Your task to perform on an android device: open app "Duolingo: language lessons" Image 0: 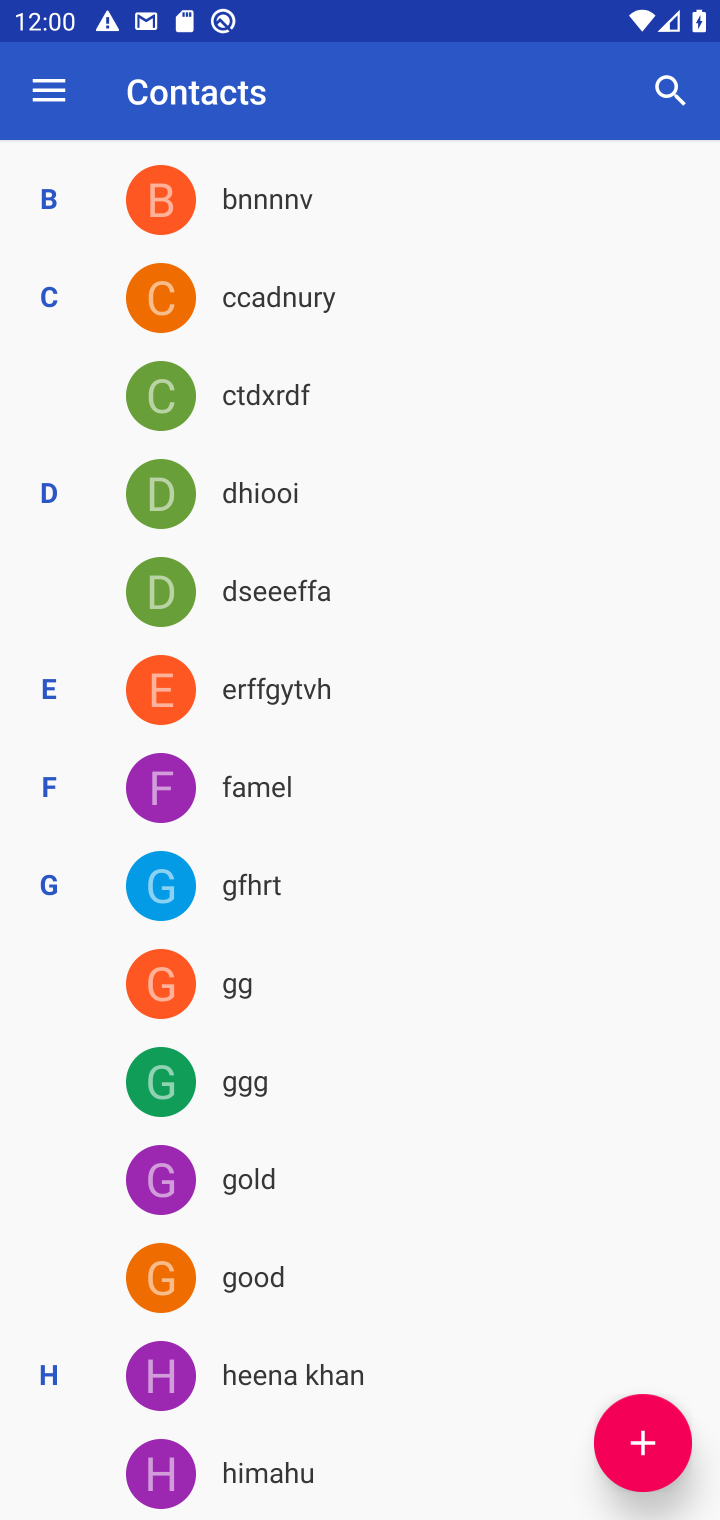
Step 0: press home button
Your task to perform on an android device: open app "Duolingo: language lessons" Image 1: 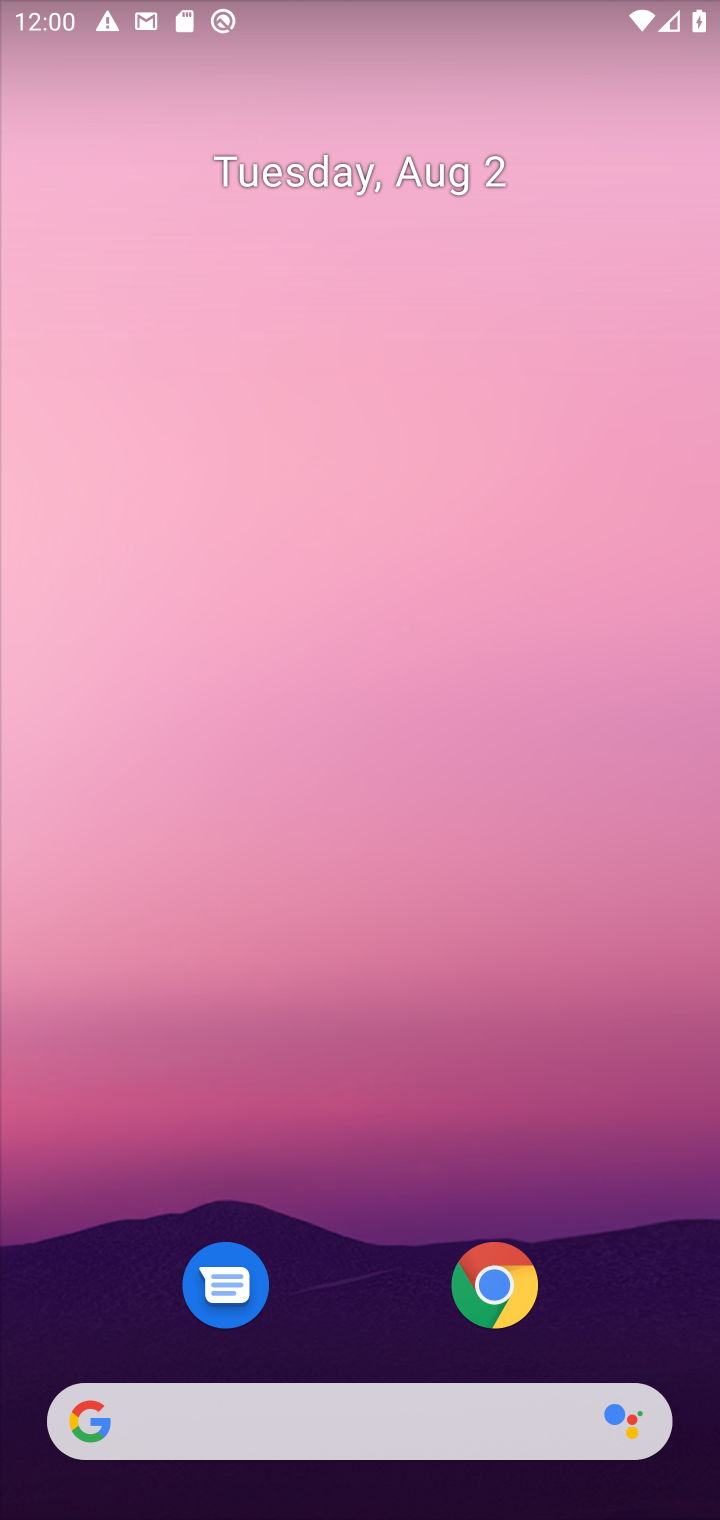
Step 1: drag from (387, 1337) to (719, 455)
Your task to perform on an android device: open app "Duolingo: language lessons" Image 2: 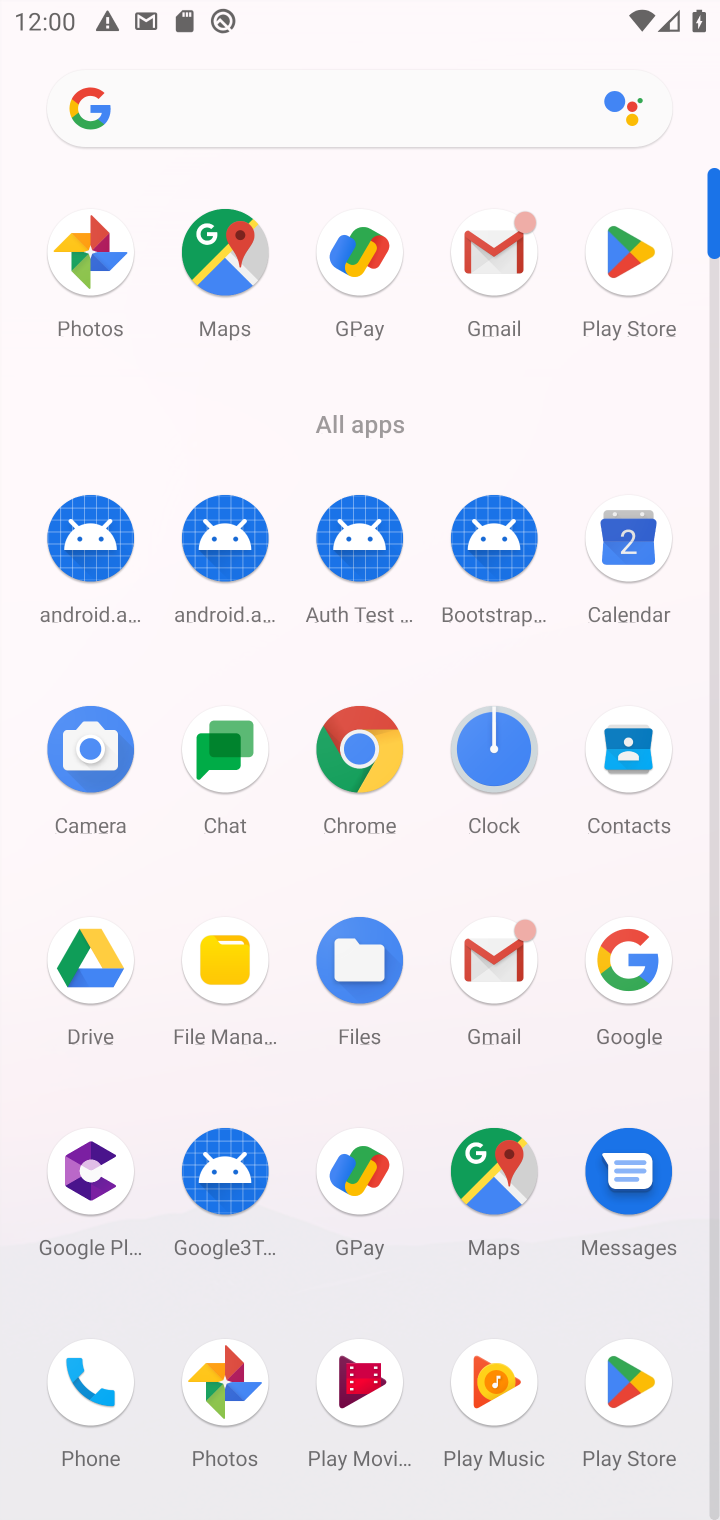
Step 2: click (601, 213)
Your task to perform on an android device: open app "Duolingo: language lessons" Image 3: 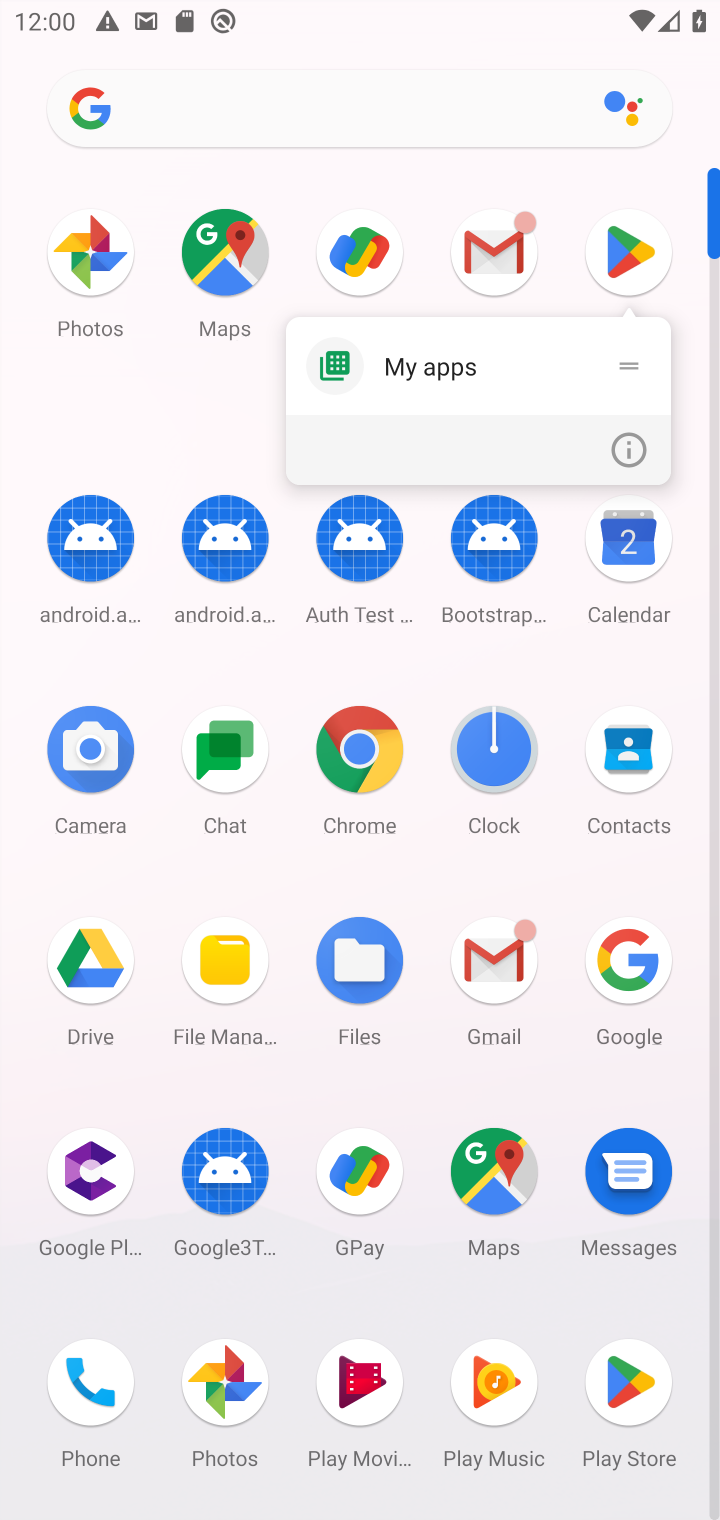
Step 3: click (616, 275)
Your task to perform on an android device: open app "Duolingo: language lessons" Image 4: 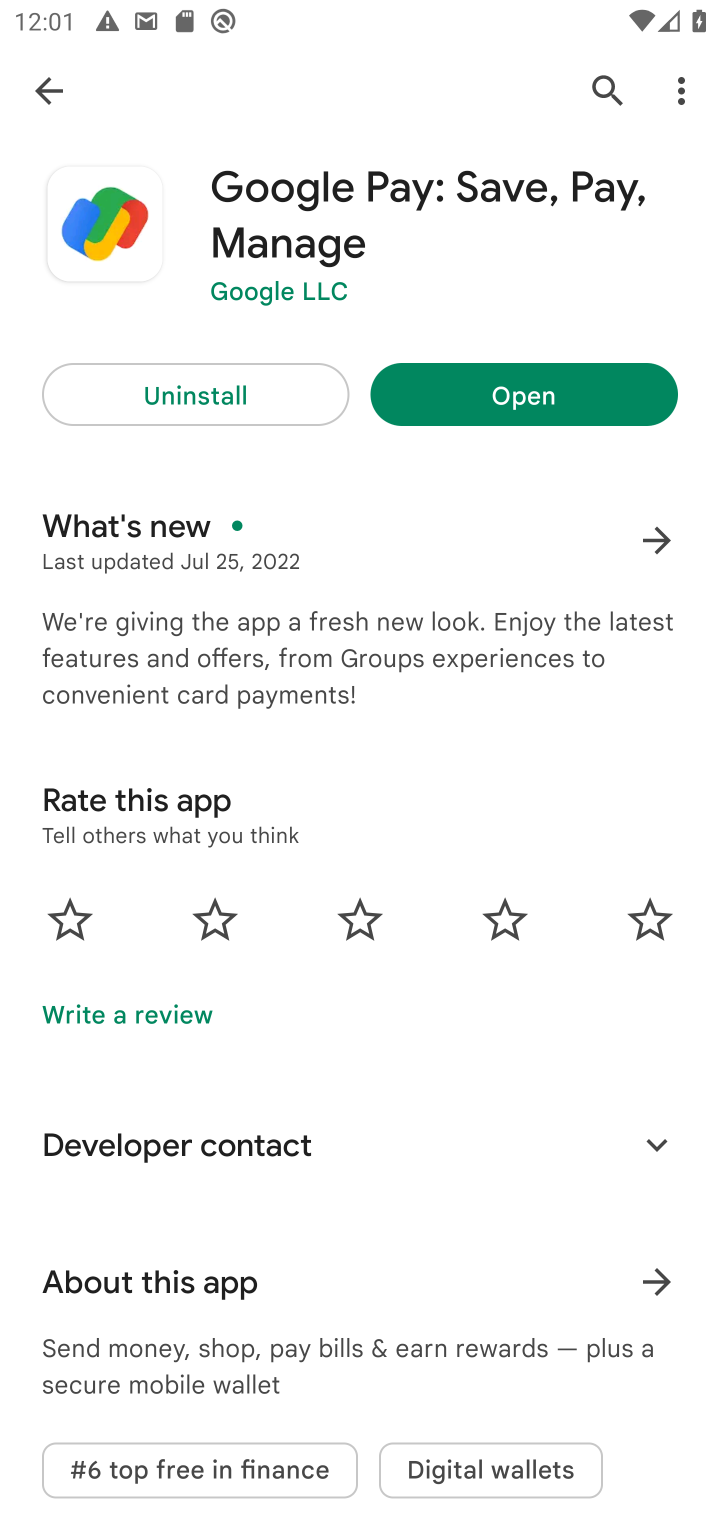
Step 4: click (598, 103)
Your task to perform on an android device: open app "Duolingo: language lessons" Image 5: 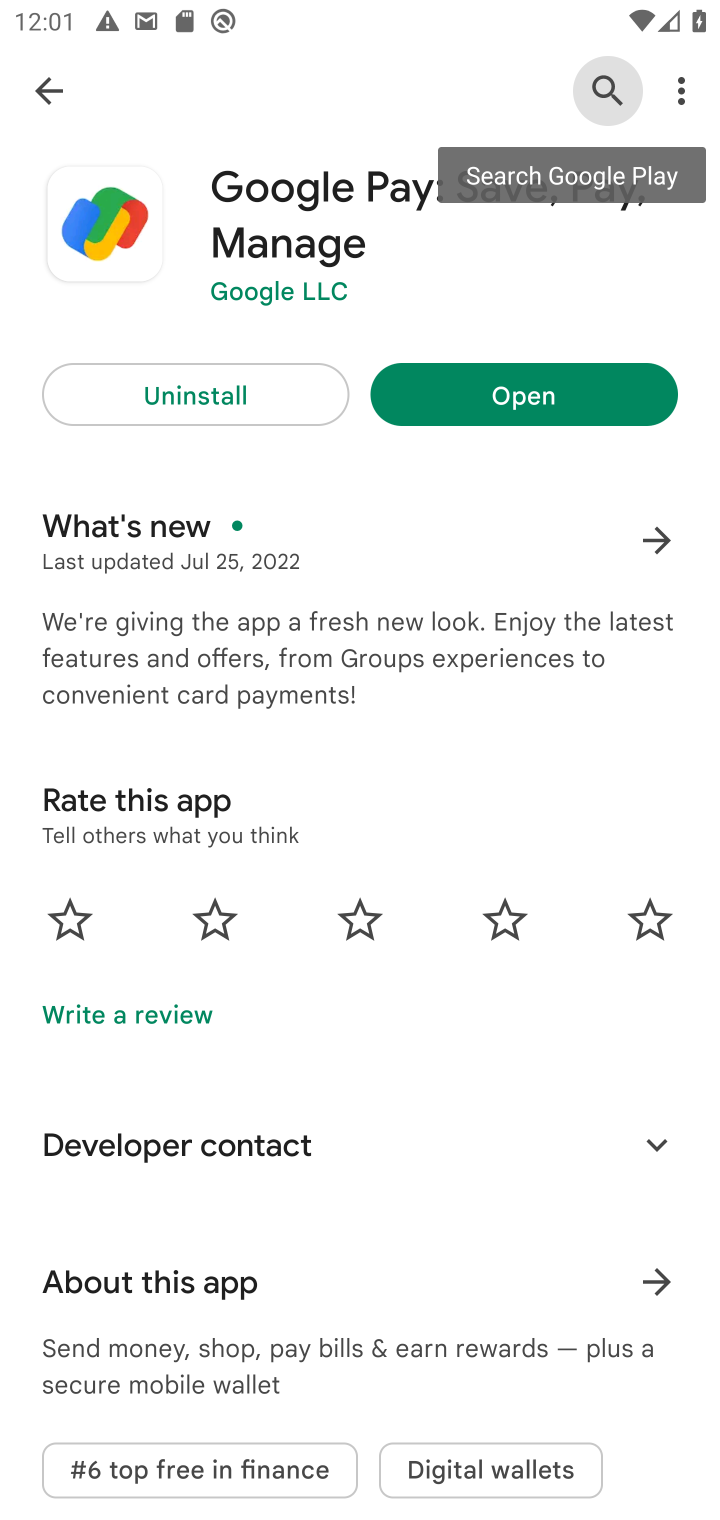
Step 5: click (598, 103)
Your task to perform on an android device: open app "Duolingo: language lessons" Image 6: 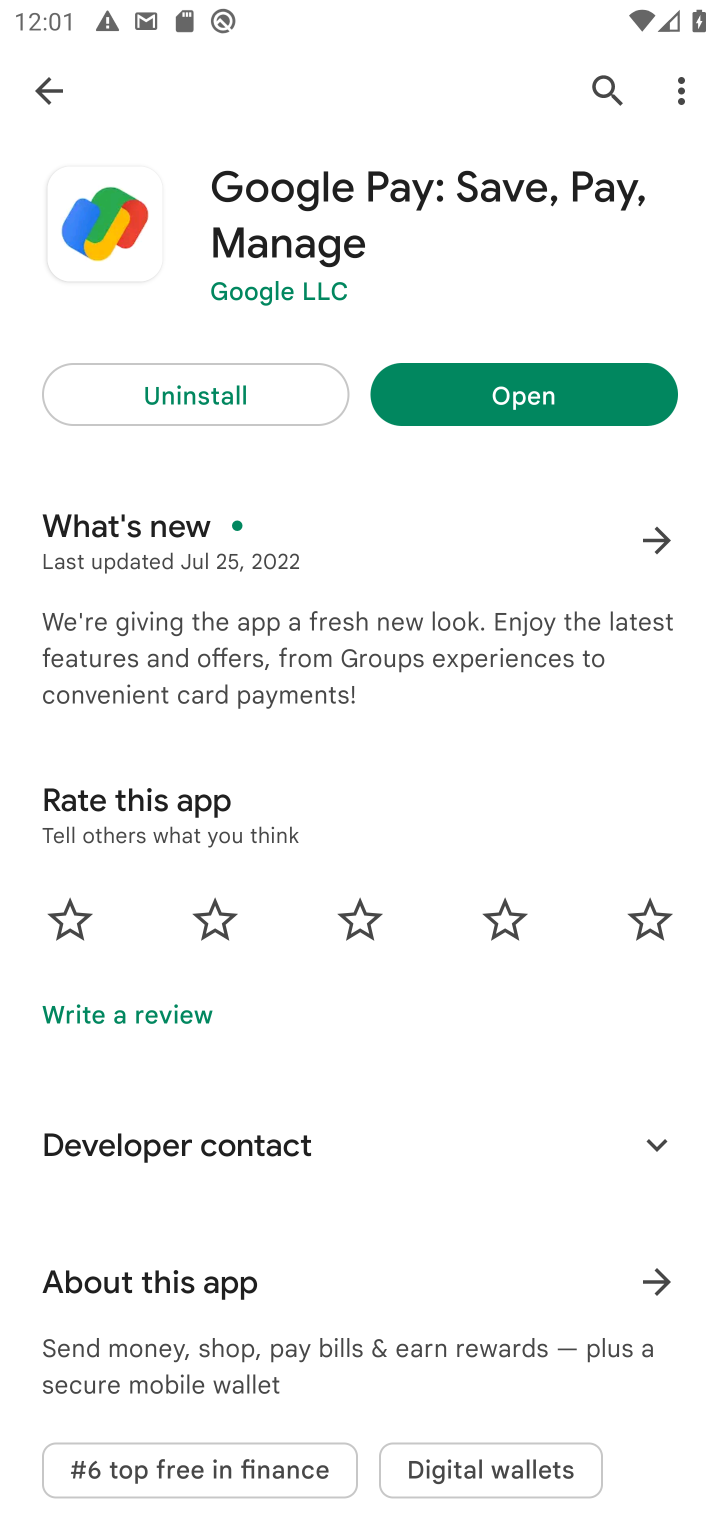
Step 6: click (589, 92)
Your task to perform on an android device: open app "Duolingo: language lessons" Image 7: 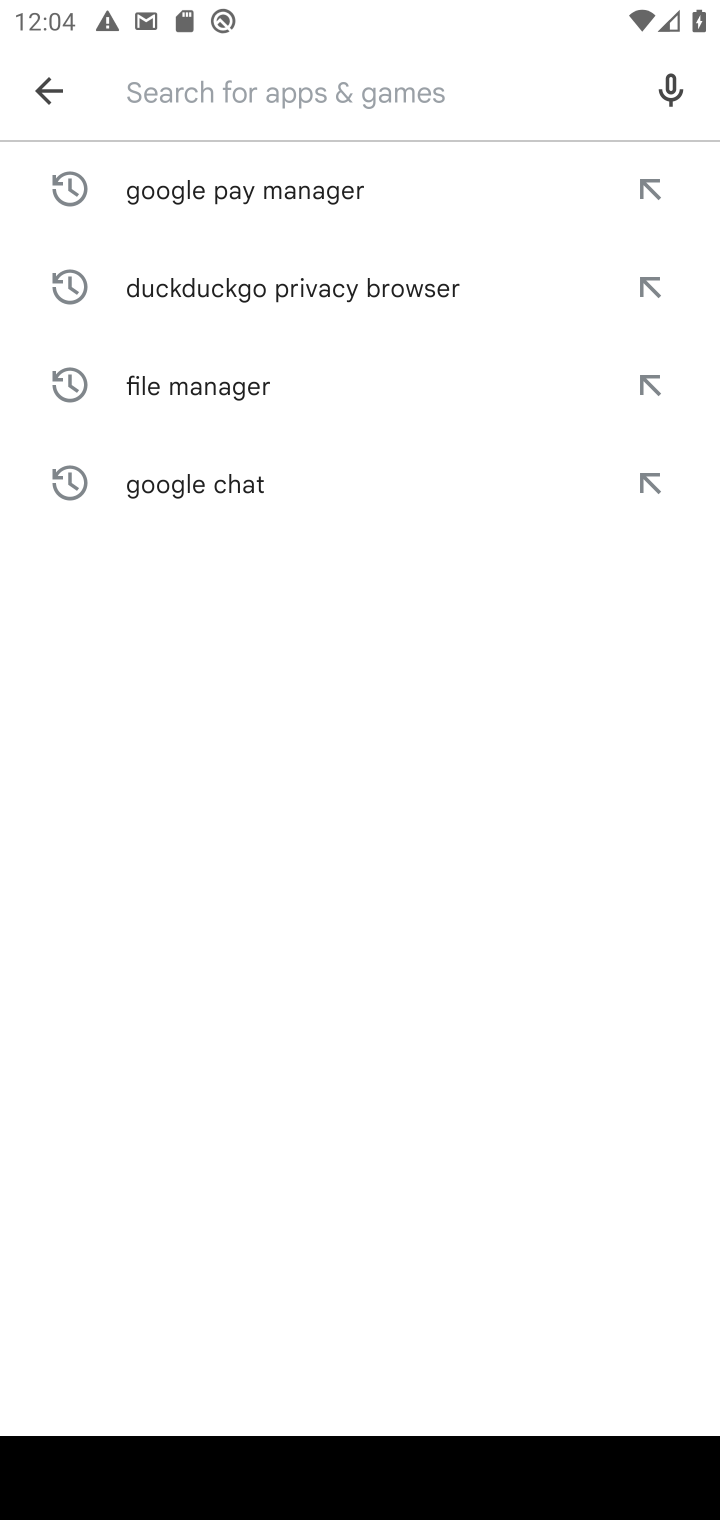
Step 7: type "Duolingo; language lenguage"
Your task to perform on an android device: open app "Duolingo: language lessons" Image 8: 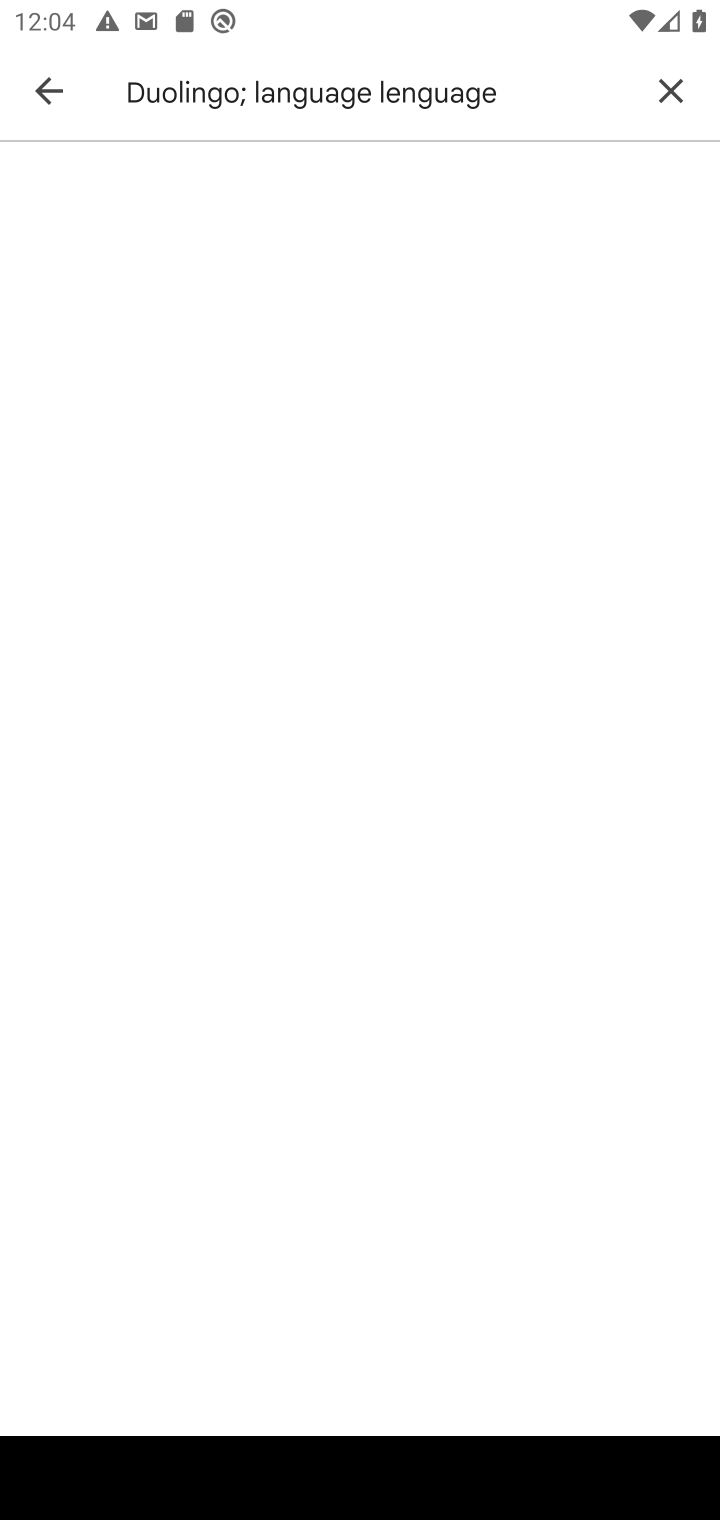
Step 8: click (534, 94)
Your task to perform on an android device: open app "Duolingo: language lessons" Image 9: 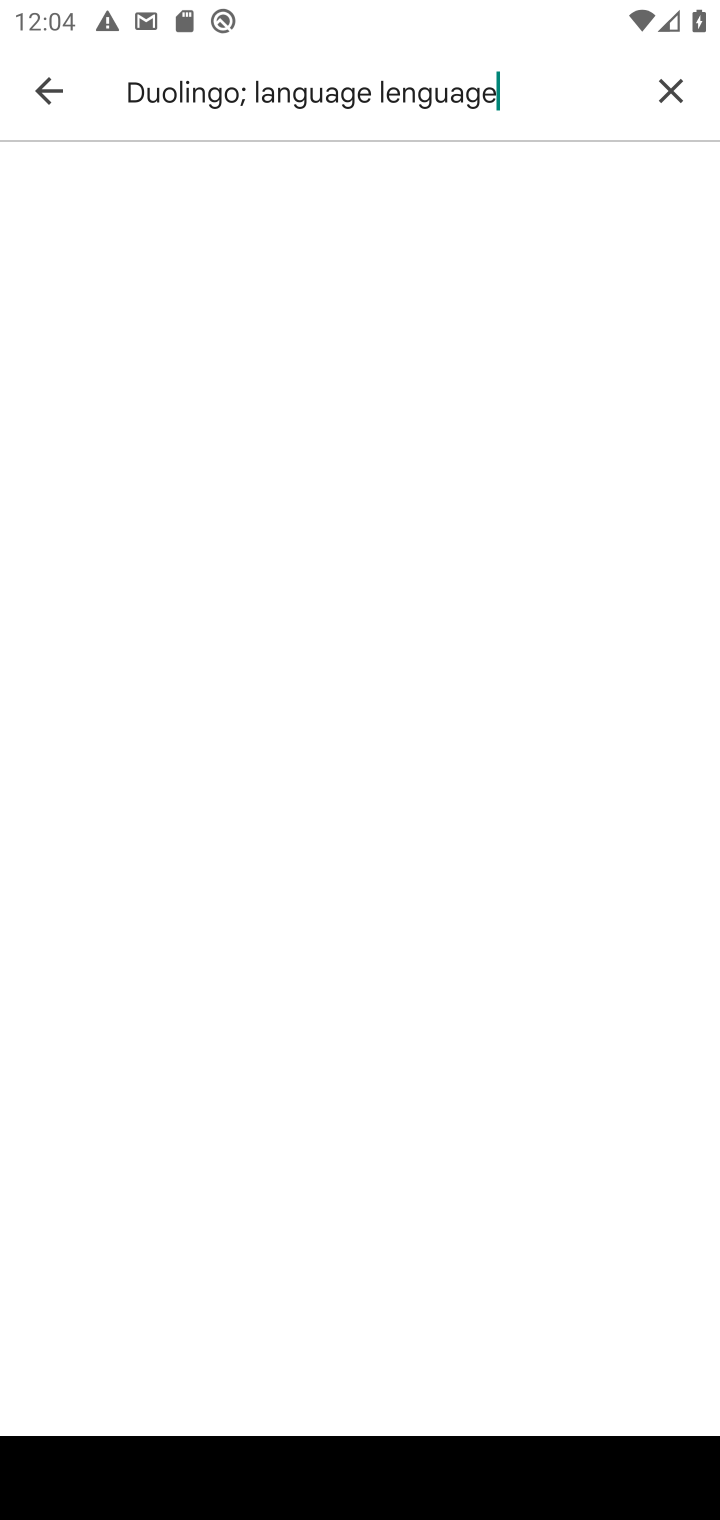
Step 9: click (681, 90)
Your task to perform on an android device: open app "Duolingo: language lessons" Image 10: 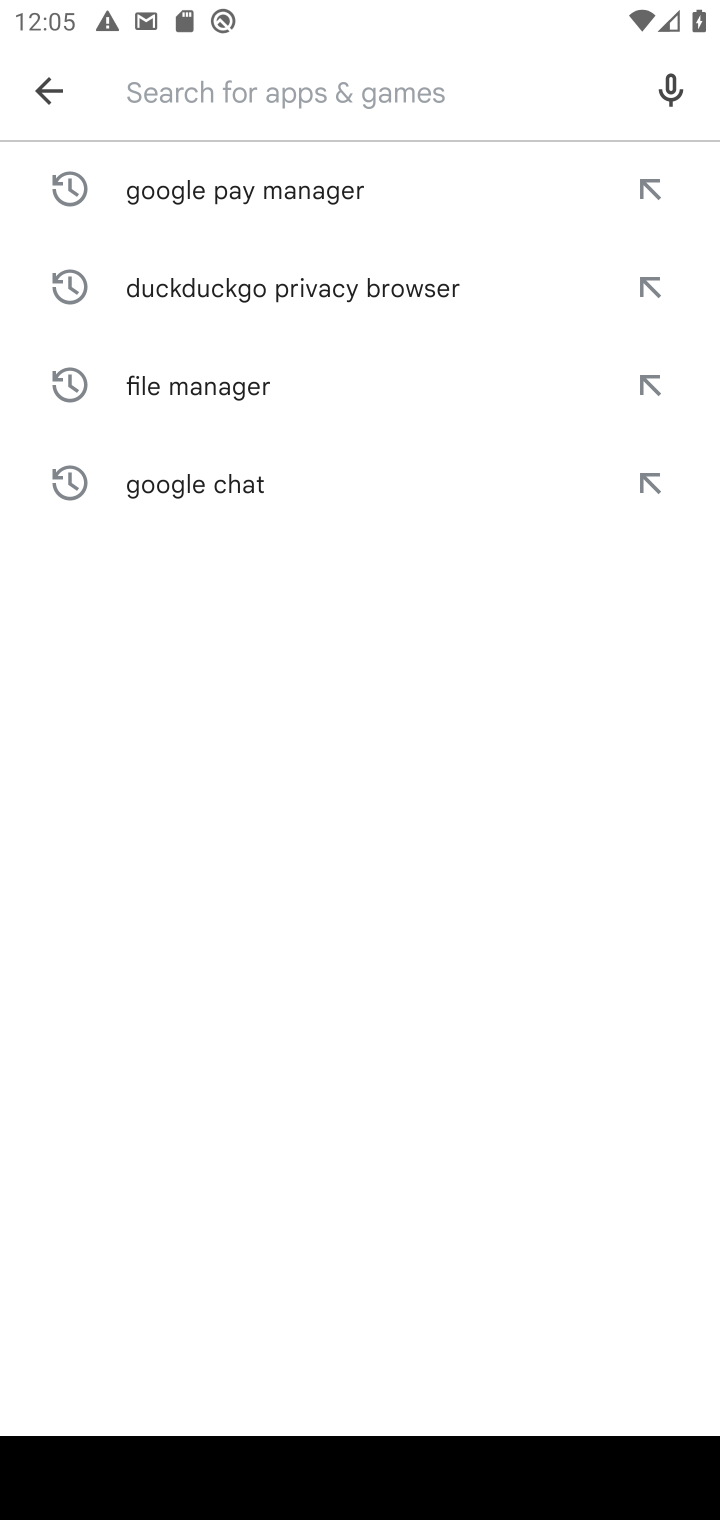
Step 10: type "Duolingo lenuage lessons"
Your task to perform on an android device: open app "Duolingo: language lessons" Image 11: 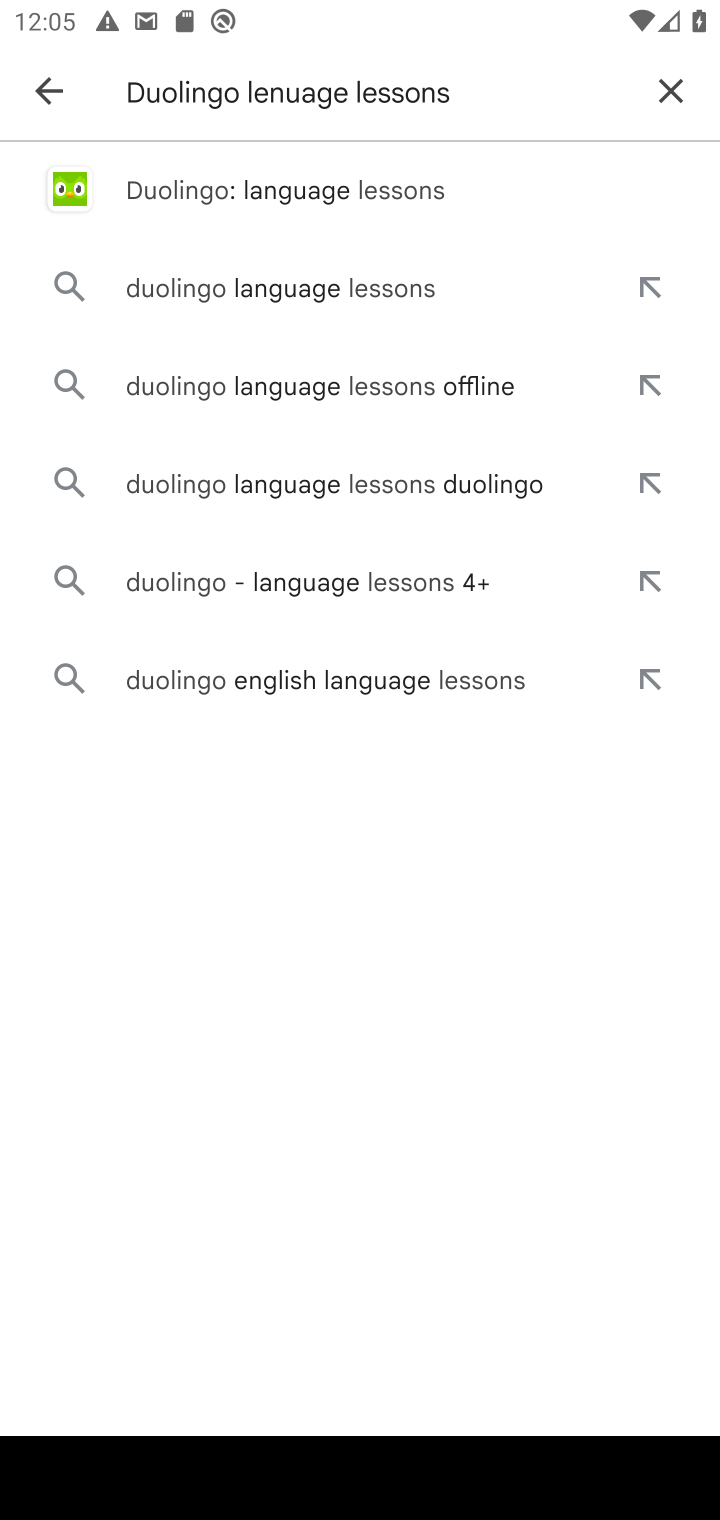
Step 11: click (385, 192)
Your task to perform on an android device: open app "Duolingo: language lessons" Image 12: 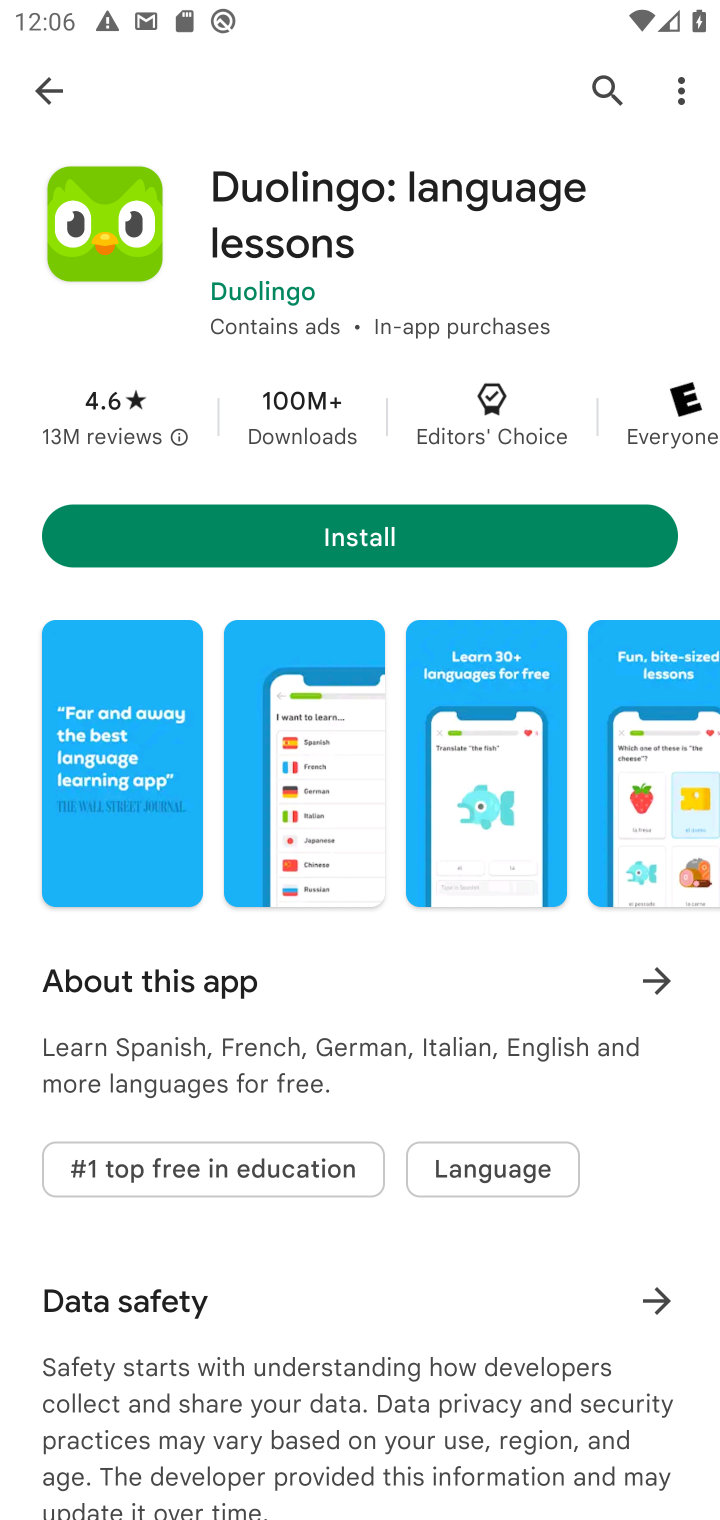
Step 12: task complete